Your task to perform on an android device: add a label to a message in the gmail app Image 0: 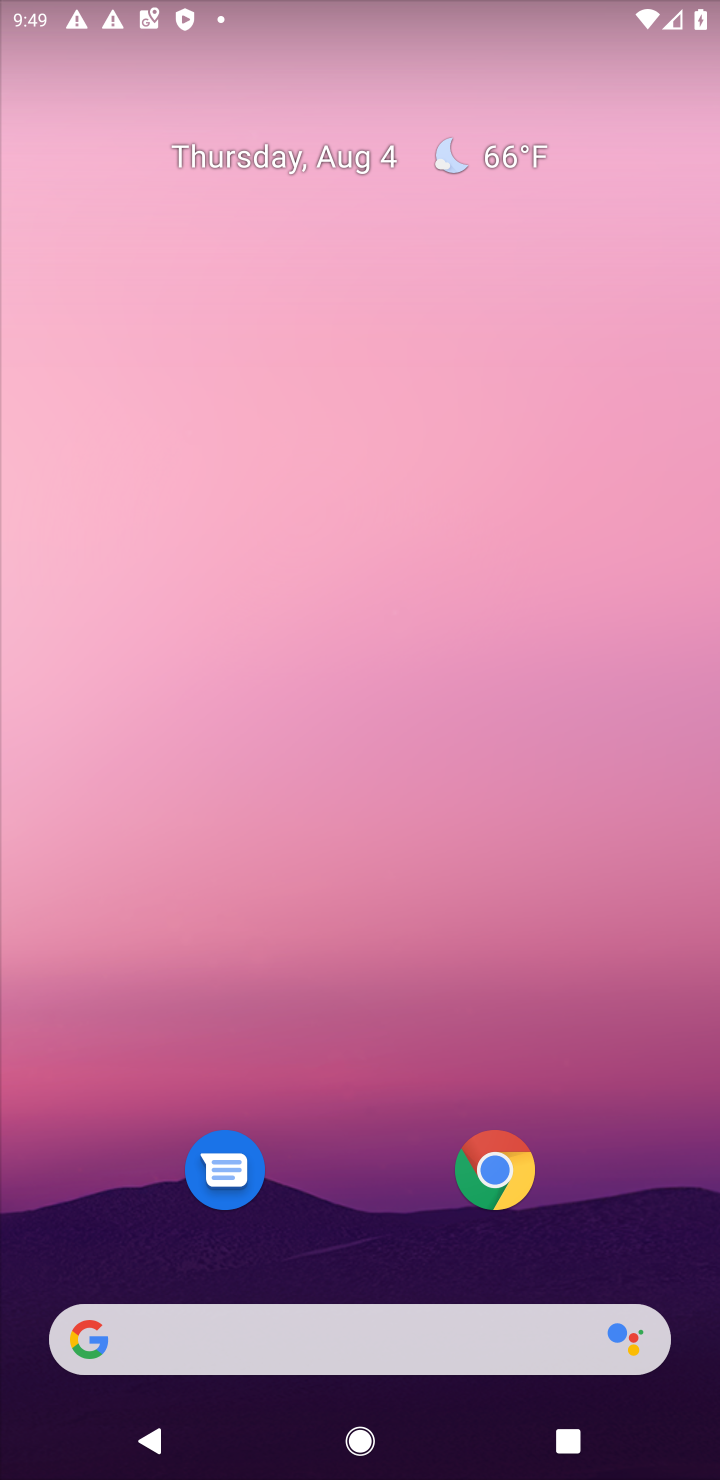
Step 0: drag from (287, 1234) to (151, 15)
Your task to perform on an android device: add a label to a message in the gmail app Image 1: 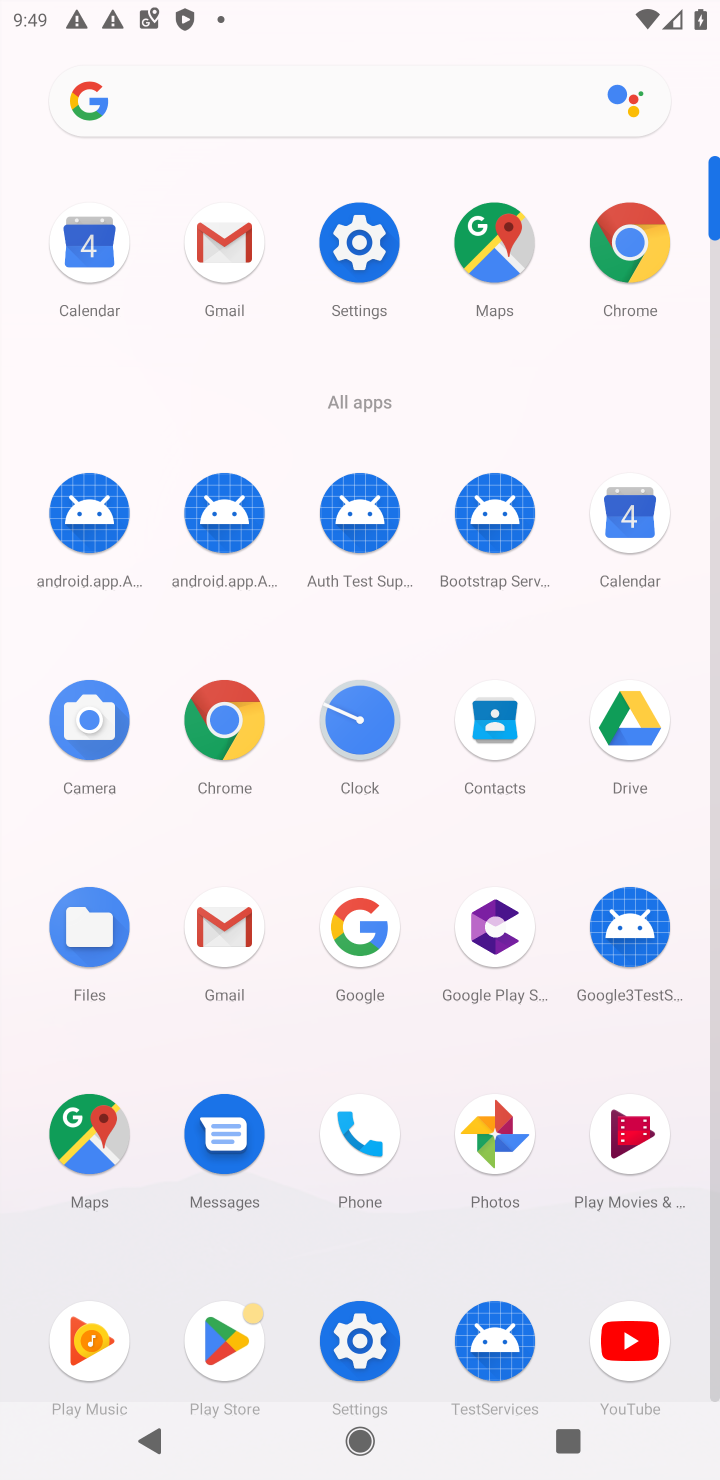
Step 1: click (214, 258)
Your task to perform on an android device: add a label to a message in the gmail app Image 2: 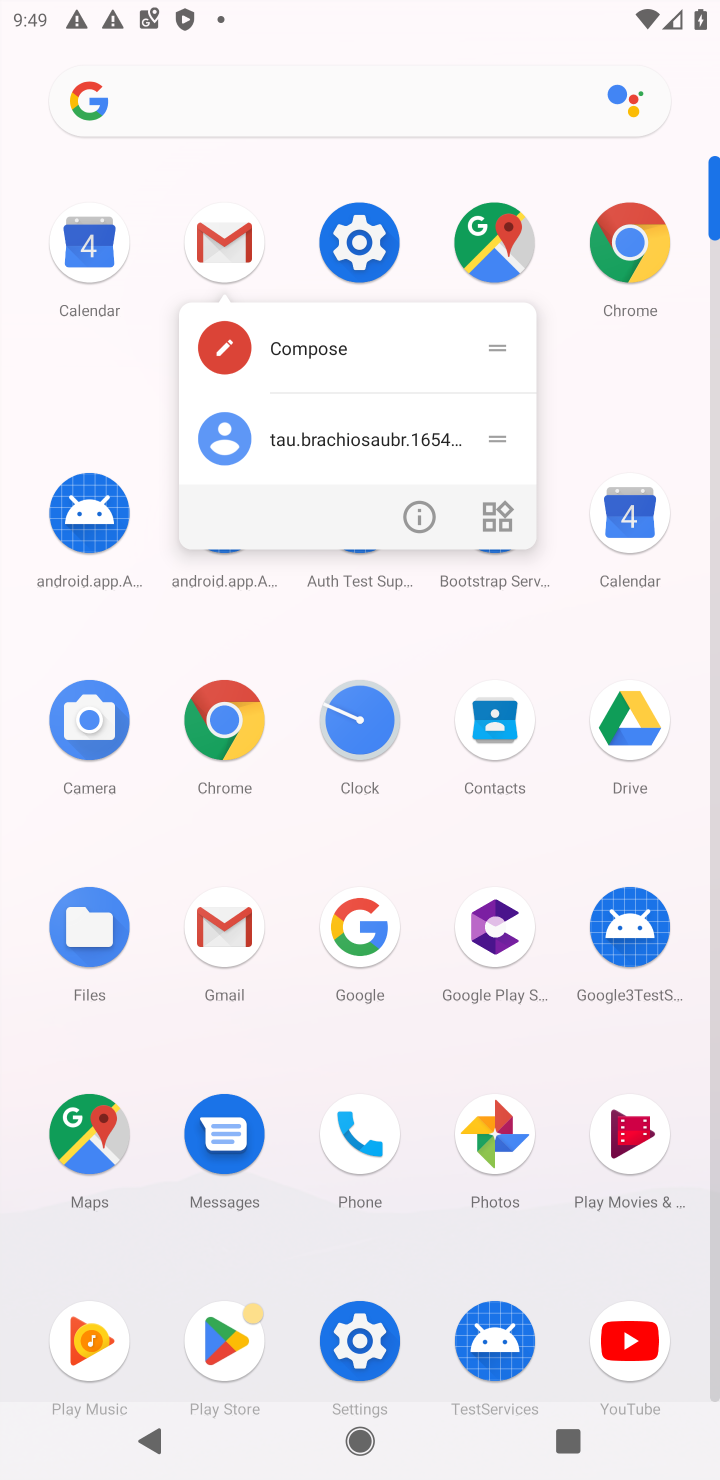
Step 2: click (235, 241)
Your task to perform on an android device: add a label to a message in the gmail app Image 3: 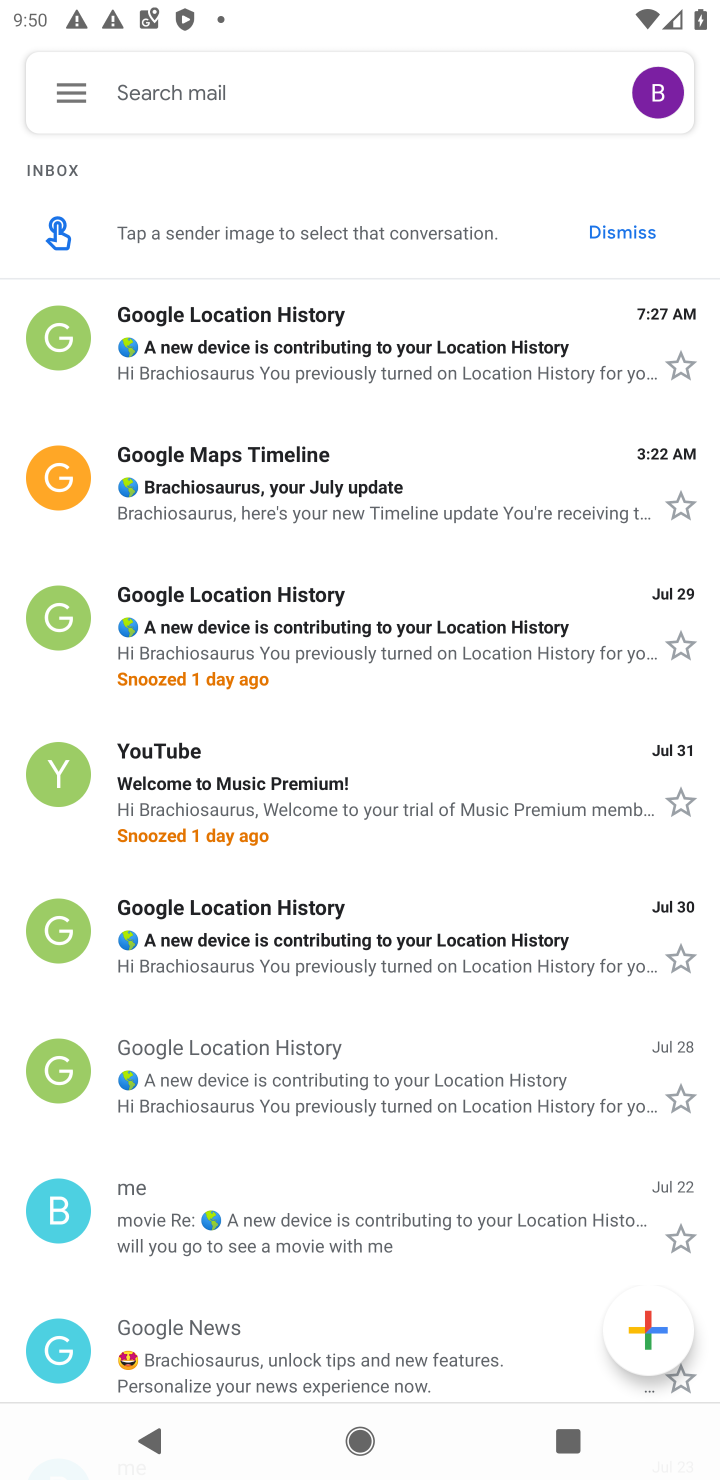
Step 3: click (170, 334)
Your task to perform on an android device: add a label to a message in the gmail app Image 4: 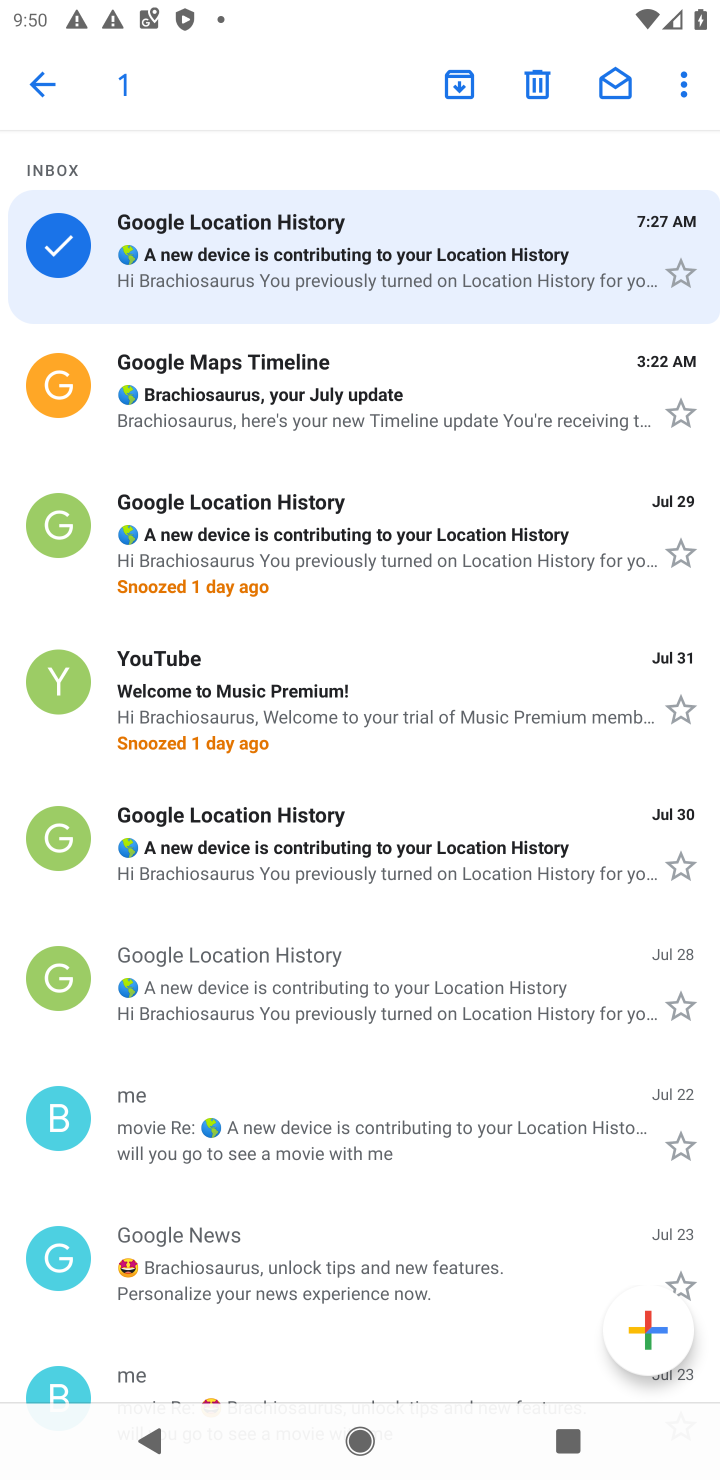
Step 4: task complete